Your task to perform on an android device: Check the weather Image 0: 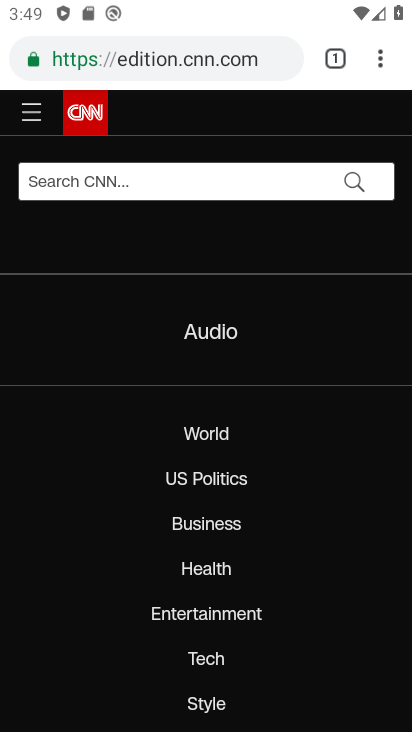
Step 0: click (218, 65)
Your task to perform on an android device: Check the weather Image 1: 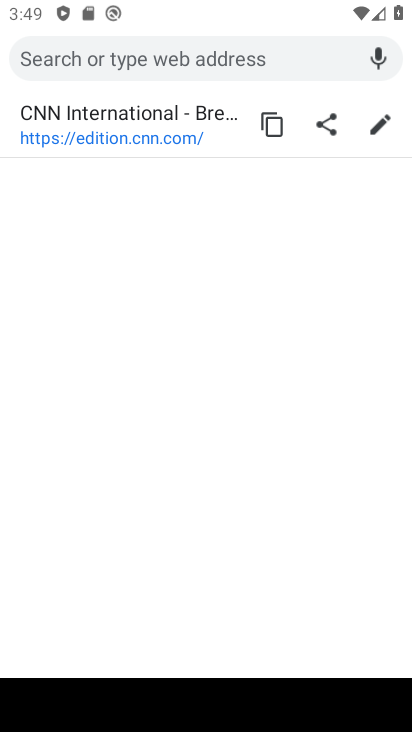
Step 1: type "weather"
Your task to perform on an android device: Check the weather Image 2: 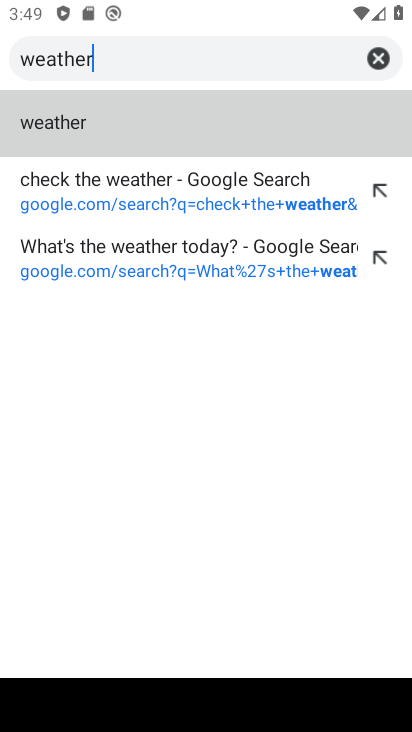
Step 2: click (62, 127)
Your task to perform on an android device: Check the weather Image 3: 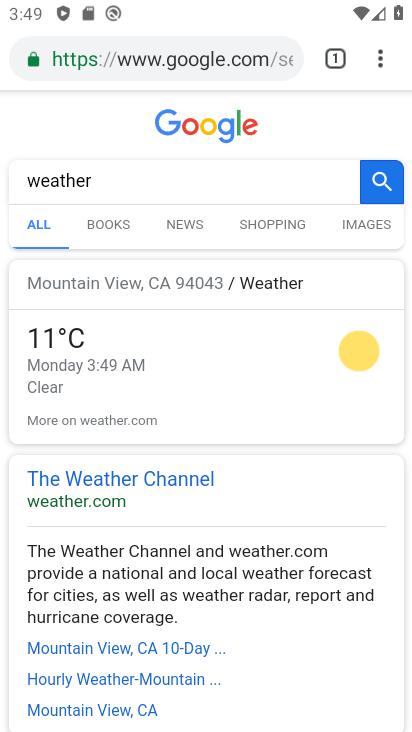
Step 3: task complete